Your task to perform on an android device: Open the stopwatch Image 0: 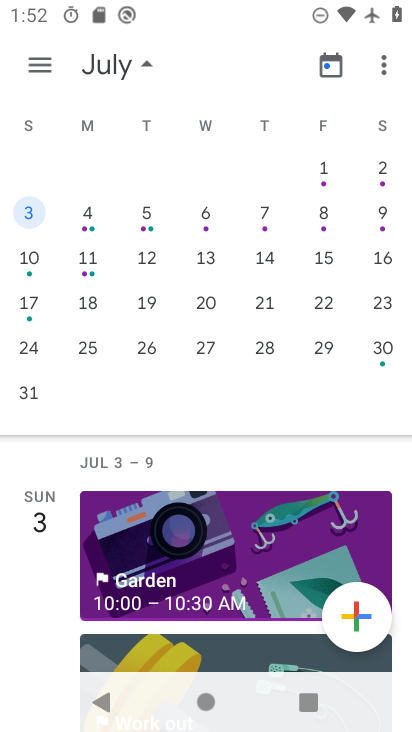
Step 0: press home button
Your task to perform on an android device: Open the stopwatch Image 1: 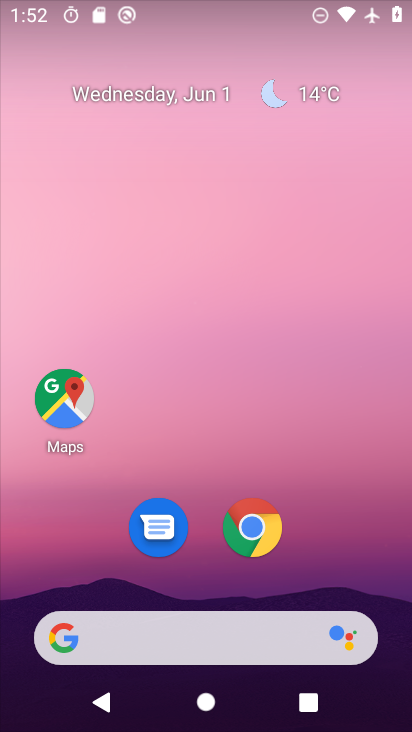
Step 1: drag from (195, 633) to (319, 6)
Your task to perform on an android device: Open the stopwatch Image 2: 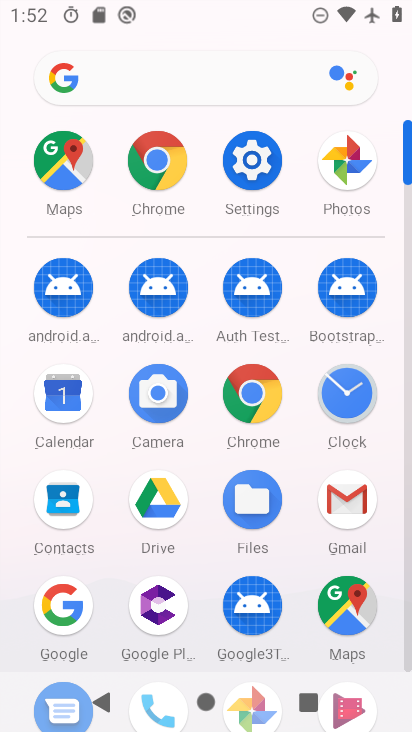
Step 2: drag from (200, 509) to (211, 126)
Your task to perform on an android device: Open the stopwatch Image 3: 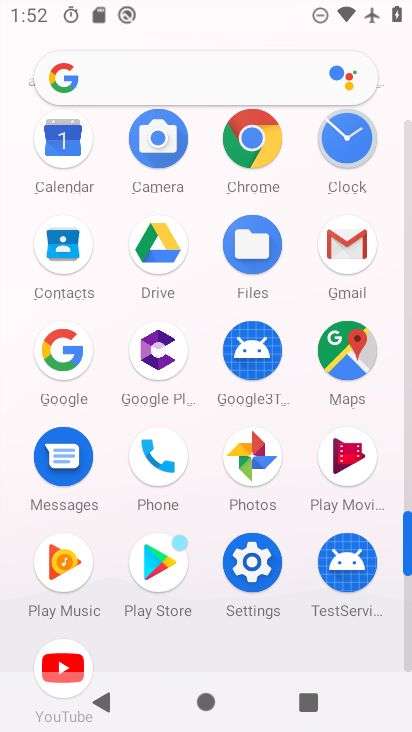
Step 3: click (352, 250)
Your task to perform on an android device: Open the stopwatch Image 4: 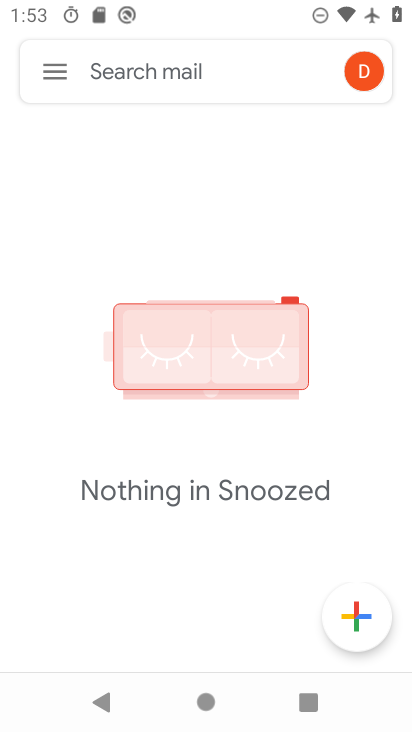
Step 4: press home button
Your task to perform on an android device: Open the stopwatch Image 5: 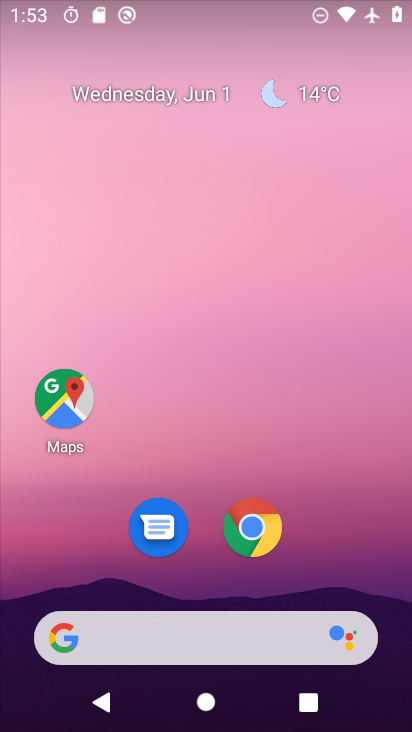
Step 5: drag from (253, 655) to (408, 51)
Your task to perform on an android device: Open the stopwatch Image 6: 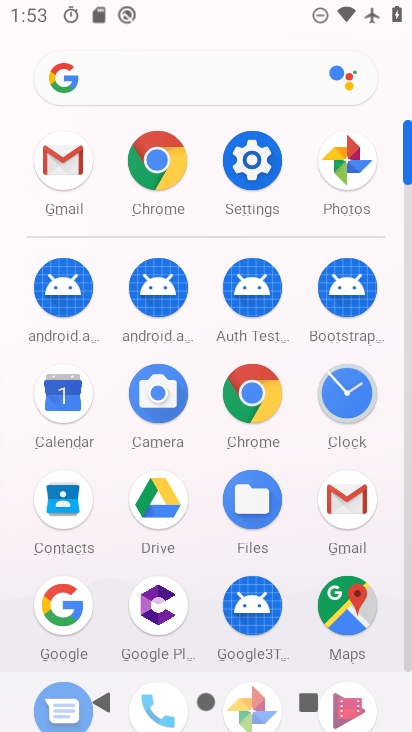
Step 6: click (354, 403)
Your task to perform on an android device: Open the stopwatch Image 7: 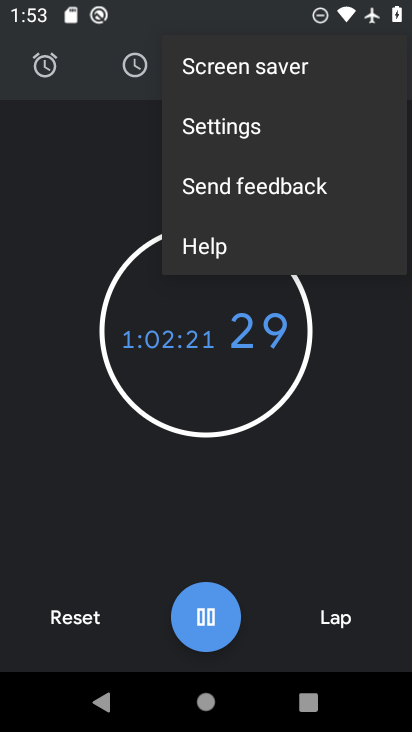
Step 7: click (228, 366)
Your task to perform on an android device: Open the stopwatch Image 8: 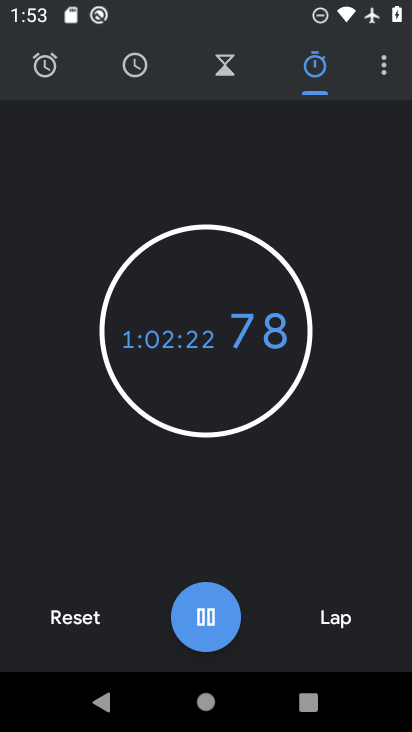
Step 8: task complete